Your task to perform on an android device: Open Chrome and go to settings Image 0: 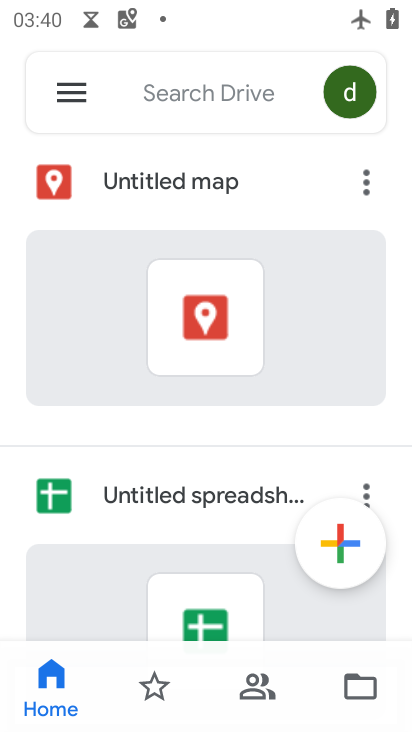
Step 0: press home button
Your task to perform on an android device: Open Chrome and go to settings Image 1: 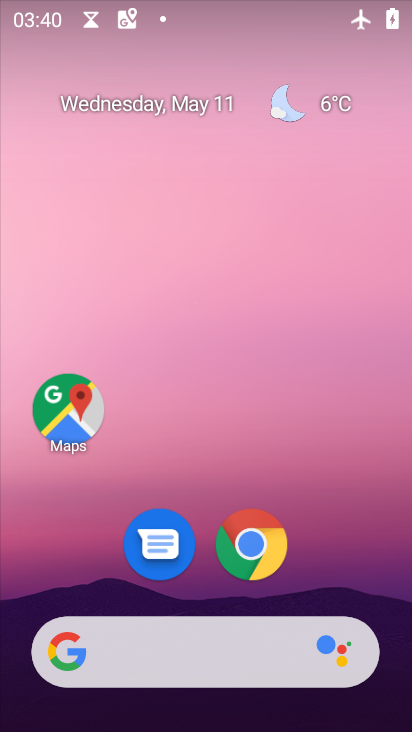
Step 1: click (248, 546)
Your task to perform on an android device: Open Chrome and go to settings Image 2: 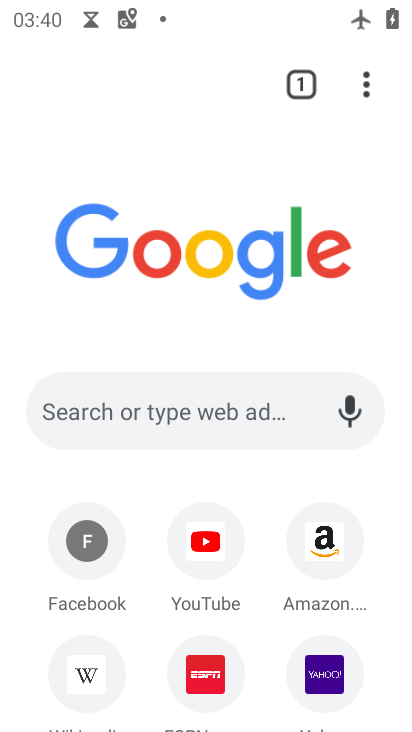
Step 2: click (365, 77)
Your task to perform on an android device: Open Chrome and go to settings Image 3: 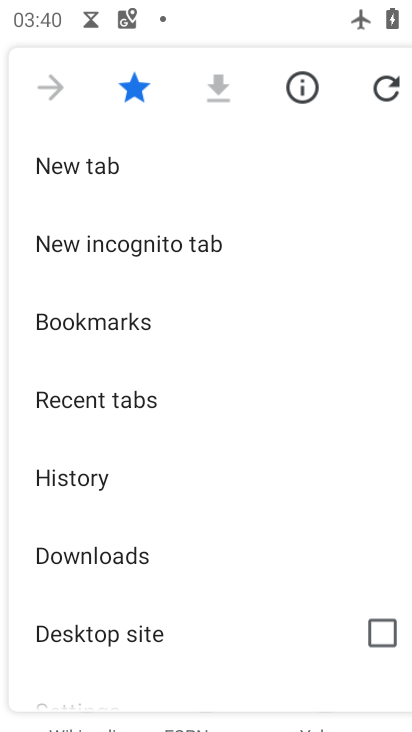
Step 3: drag from (134, 602) to (157, 236)
Your task to perform on an android device: Open Chrome and go to settings Image 4: 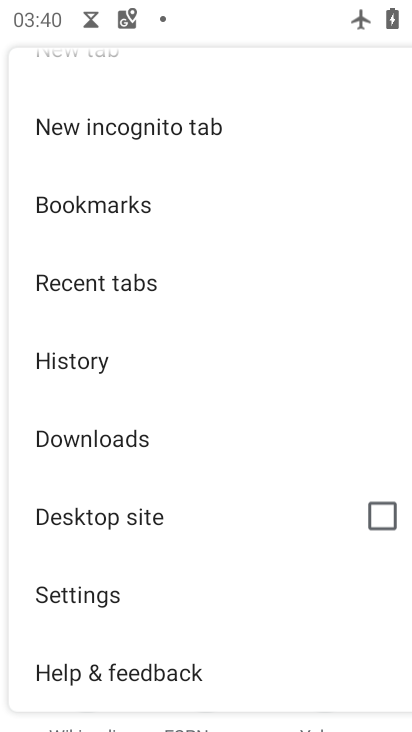
Step 4: click (117, 585)
Your task to perform on an android device: Open Chrome and go to settings Image 5: 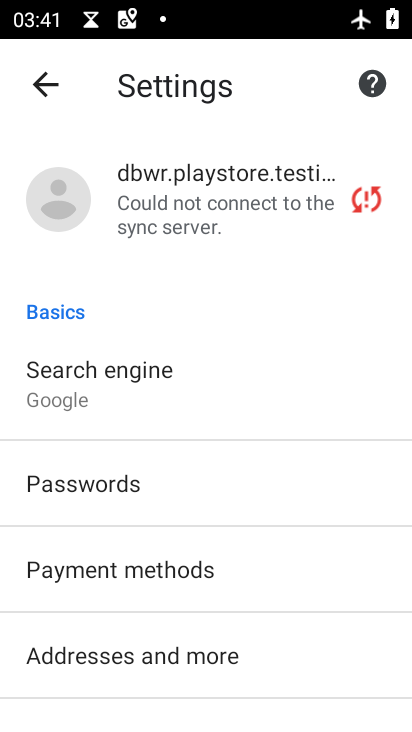
Step 5: task complete